Your task to perform on an android device: open app "Yahoo Mail" Image 0: 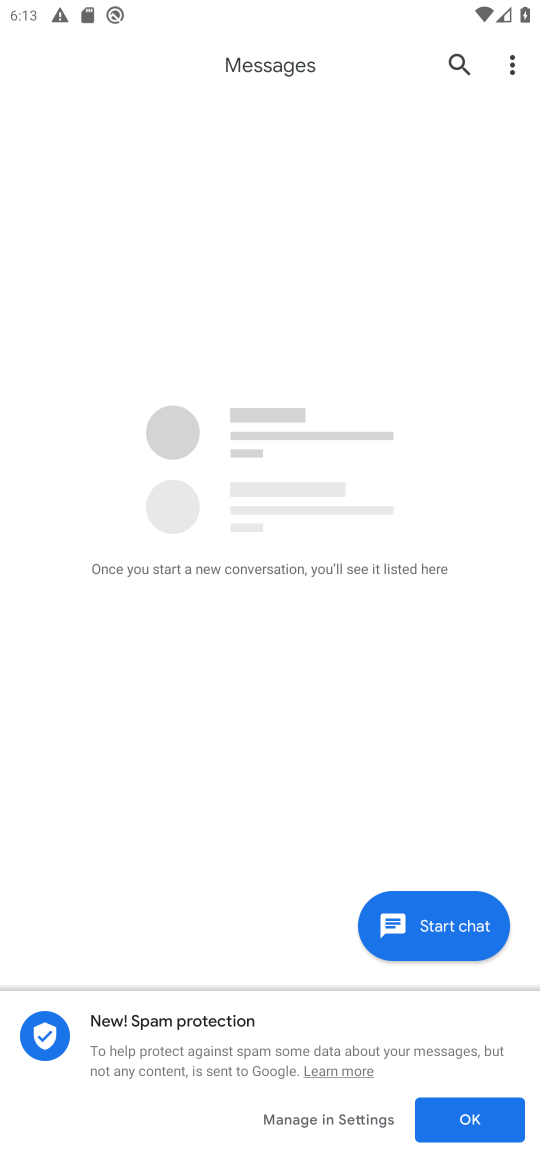
Step 0: press home button
Your task to perform on an android device: open app "Yahoo Mail" Image 1: 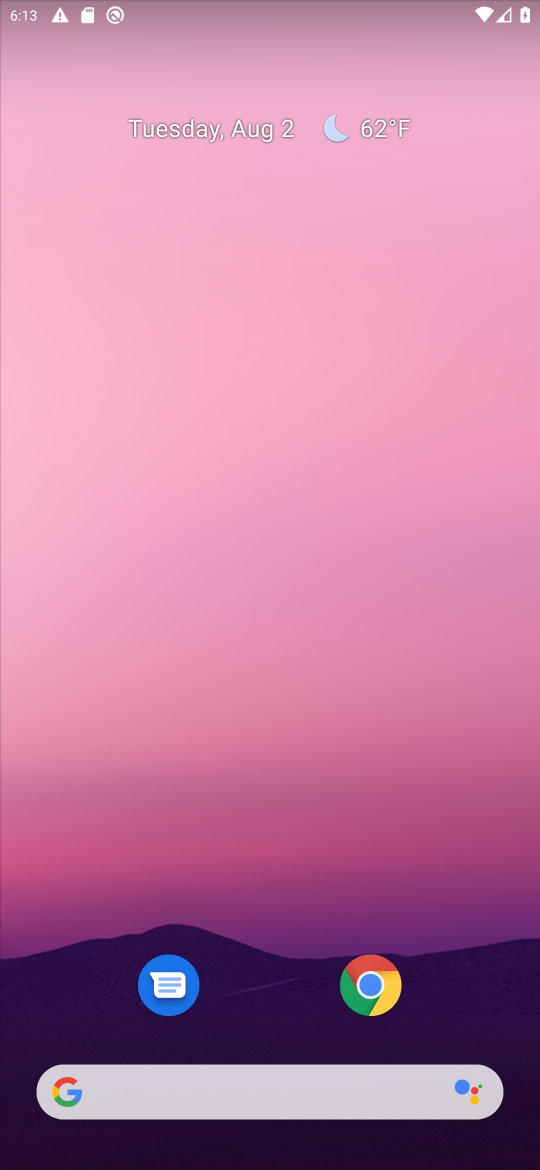
Step 1: drag from (271, 968) to (219, 304)
Your task to perform on an android device: open app "Yahoo Mail" Image 2: 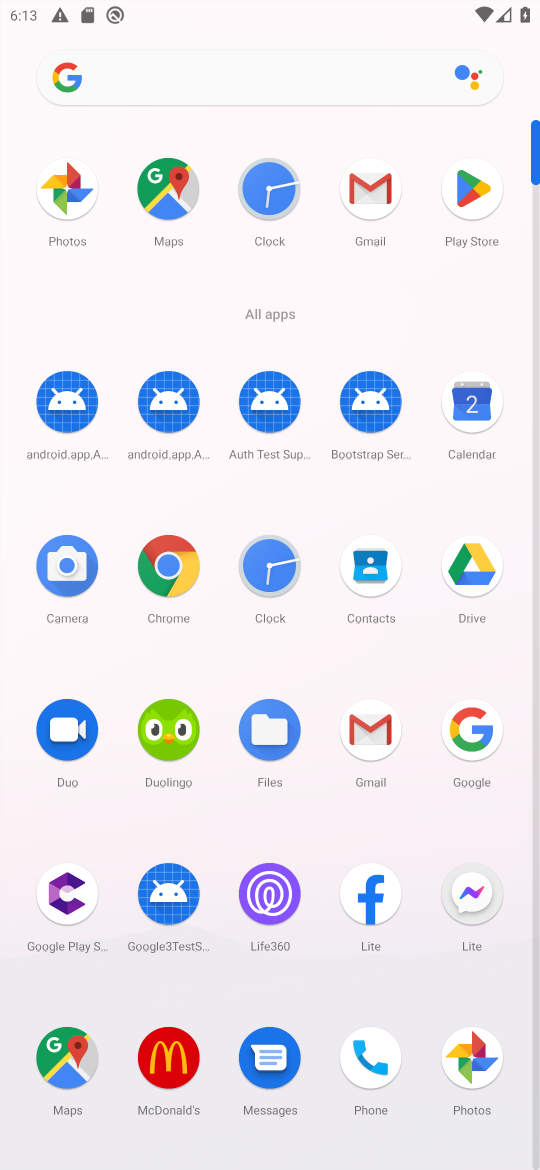
Step 2: click (462, 192)
Your task to perform on an android device: open app "Yahoo Mail" Image 3: 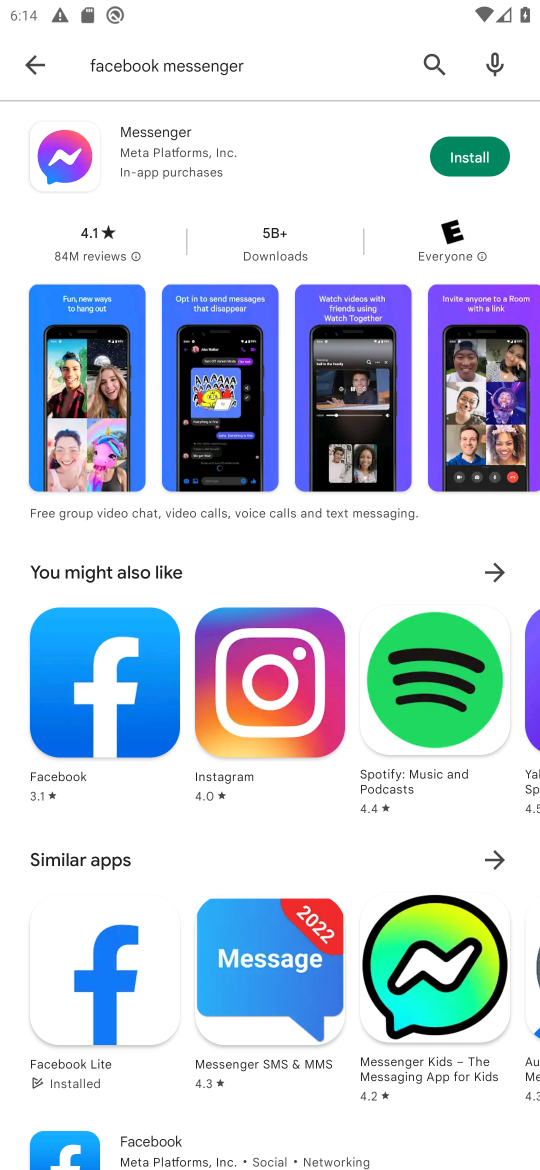
Step 3: click (431, 67)
Your task to perform on an android device: open app "Yahoo Mail" Image 4: 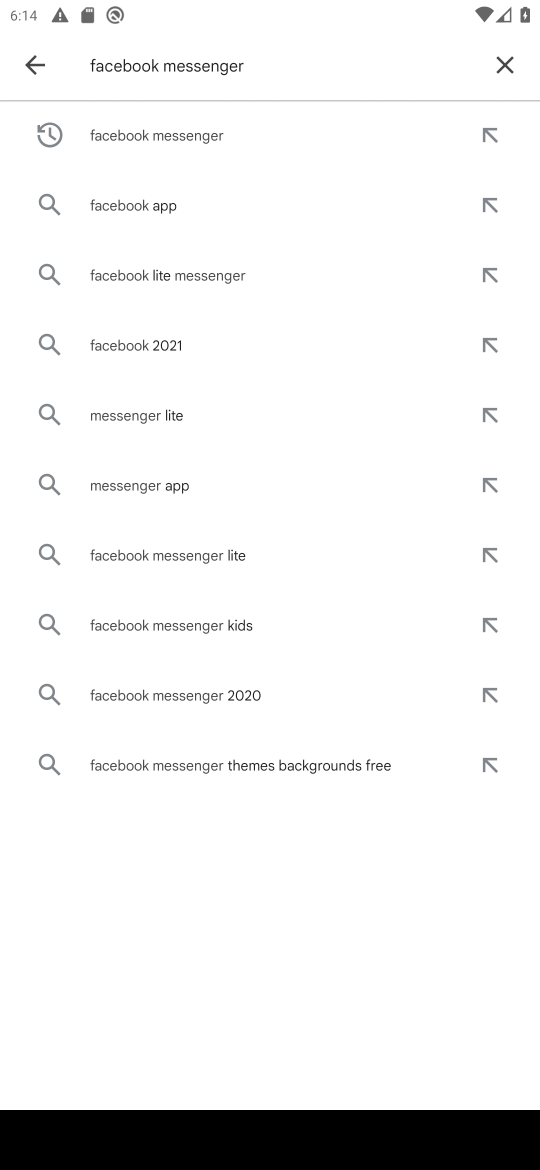
Step 4: click (489, 63)
Your task to perform on an android device: open app "Yahoo Mail" Image 5: 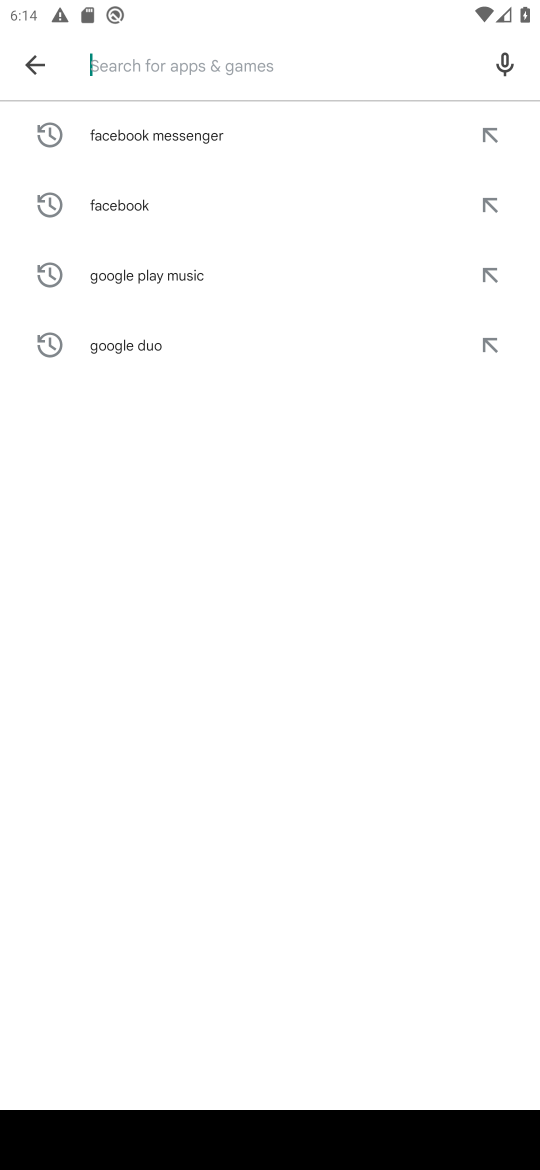
Step 5: type "Yahoo Mail"
Your task to perform on an android device: open app "Yahoo Mail" Image 6: 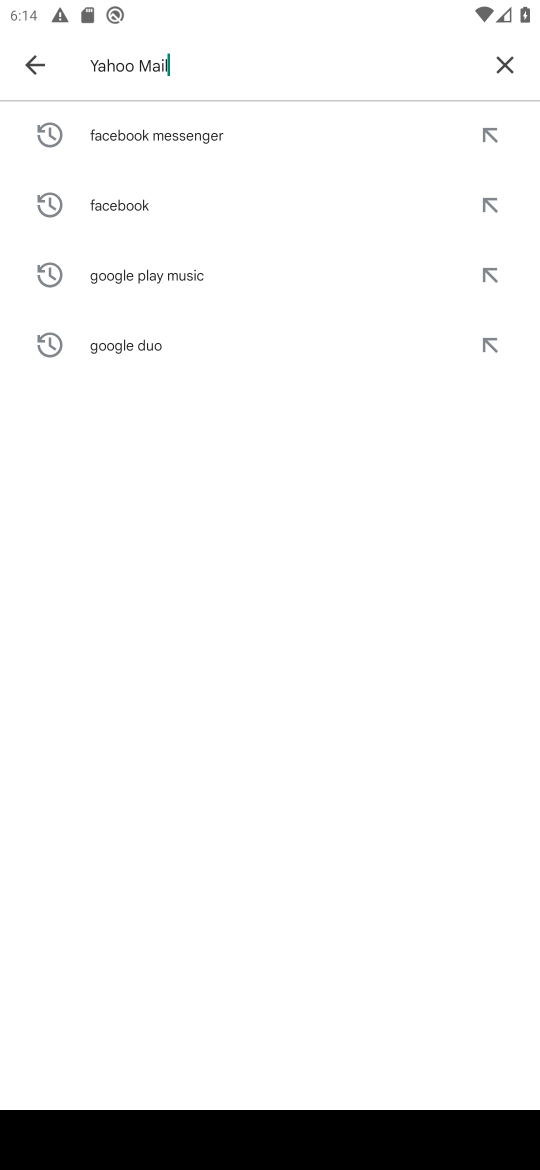
Step 6: type ""
Your task to perform on an android device: open app "Yahoo Mail" Image 7: 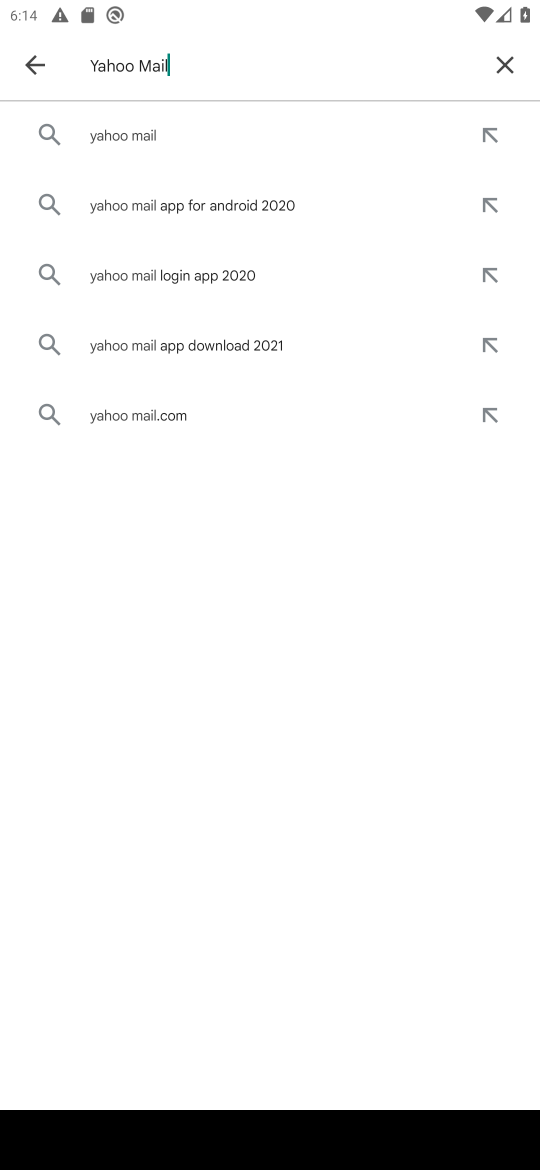
Step 7: click (171, 139)
Your task to perform on an android device: open app "Yahoo Mail" Image 8: 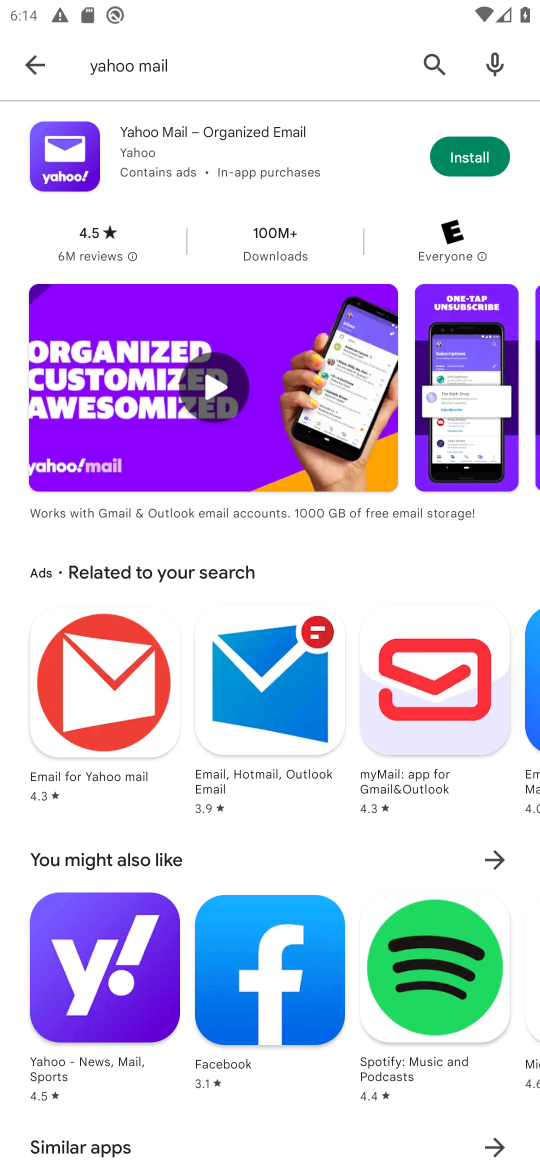
Step 8: task complete